Your task to perform on an android device: Go to display settings Image 0: 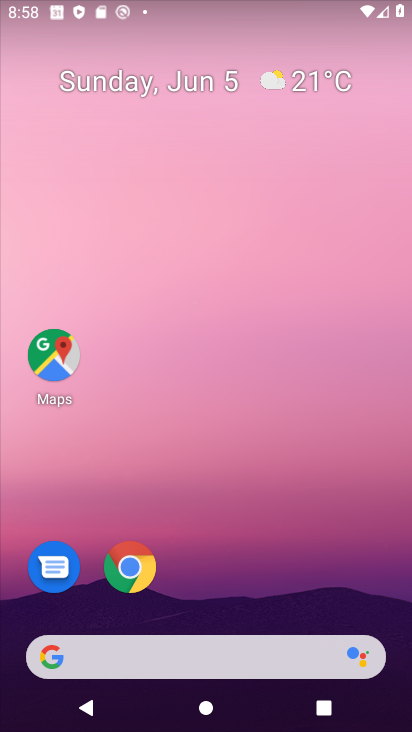
Step 0: drag from (224, 632) to (224, 357)
Your task to perform on an android device: Go to display settings Image 1: 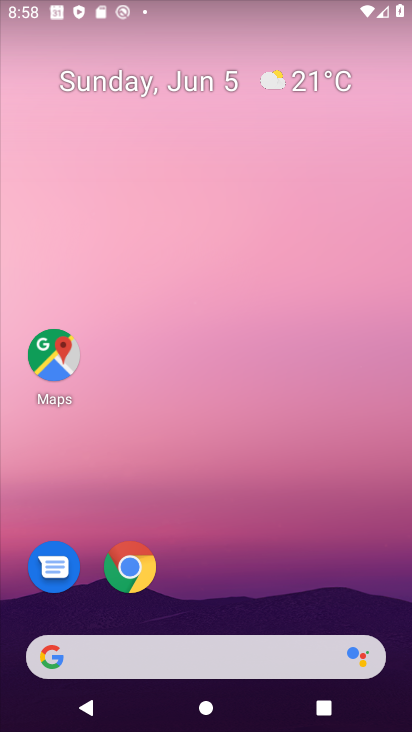
Step 1: drag from (151, 650) to (195, 372)
Your task to perform on an android device: Go to display settings Image 2: 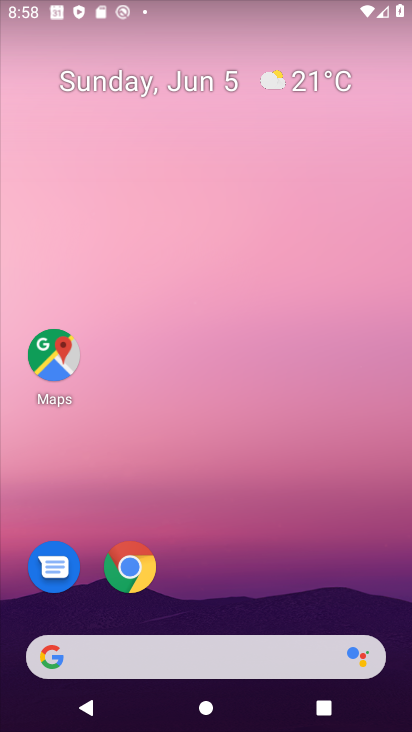
Step 2: drag from (221, 625) to (251, 234)
Your task to perform on an android device: Go to display settings Image 3: 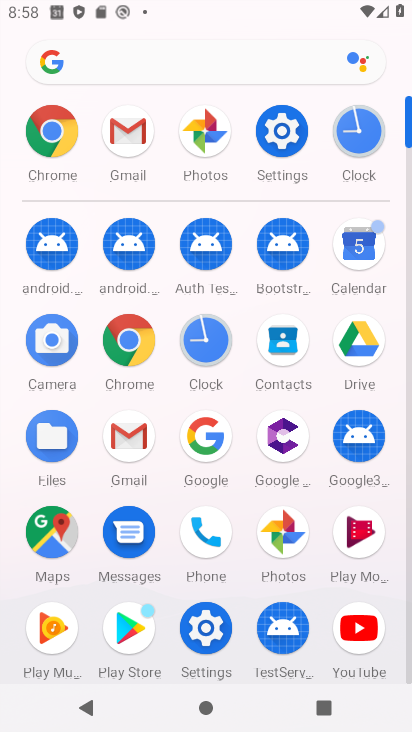
Step 3: click (283, 142)
Your task to perform on an android device: Go to display settings Image 4: 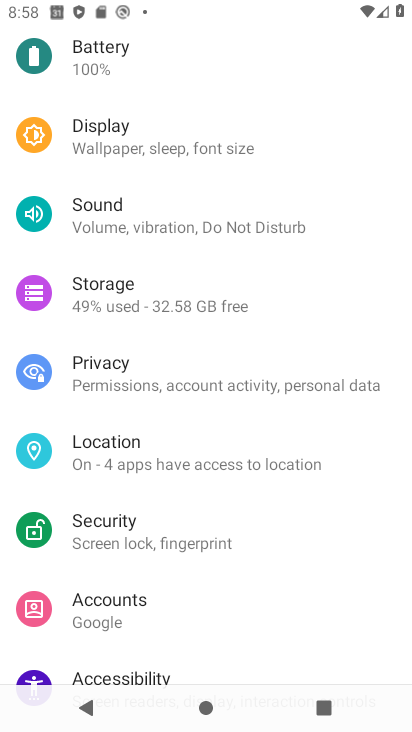
Step 4: click (137, 128)
Your task to perform on an android device: Go to display settings Image 5: 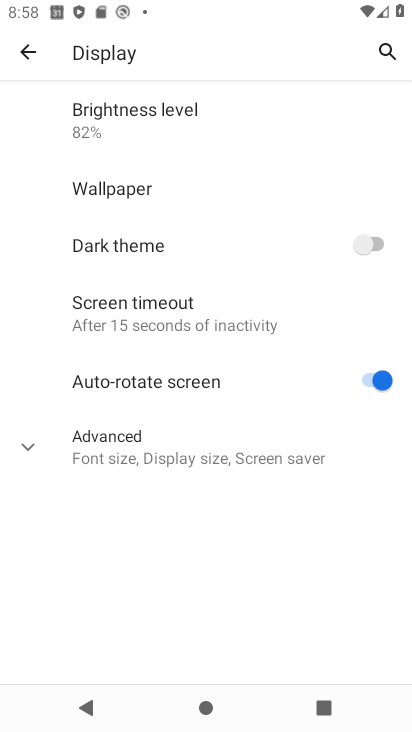
Step 5: click (121, 447)
Your task to perform on an android device: Go to display settings Image 6: 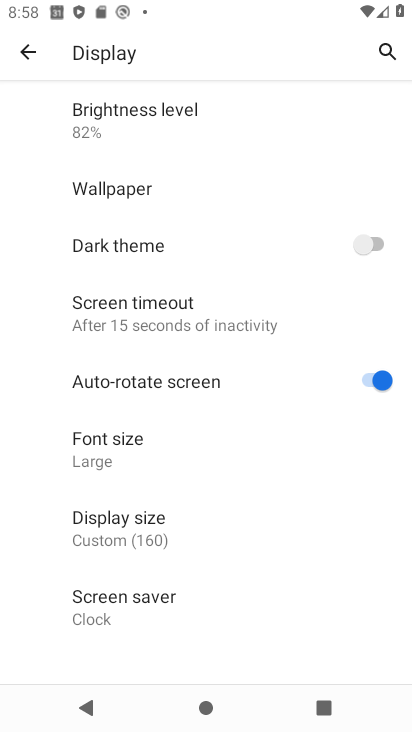
Step 6: task complete